Your task to perform on an android device: empty trash in google photos Image 0: 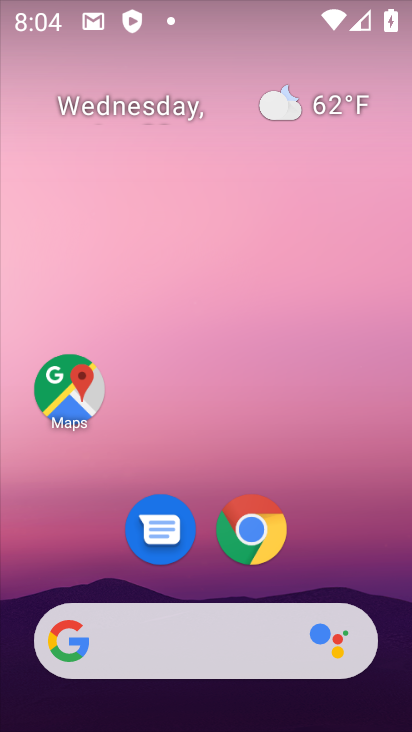
Step 0: drag from (217, 508) to (246, 155)
Your task to perform on an android device: empty trash in google photos Image 1: 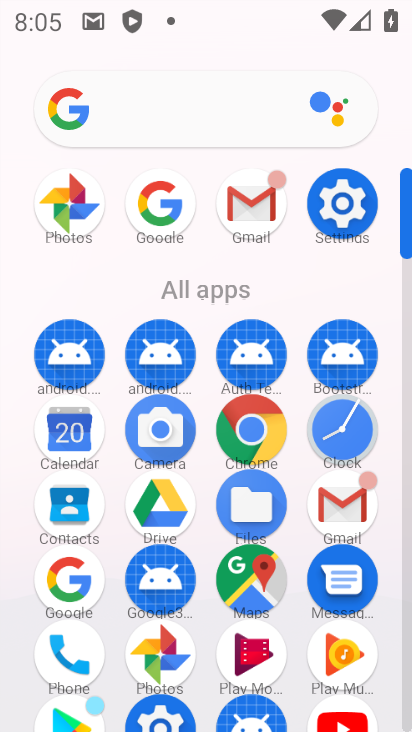
Step 1: click (171, 651)
Your task to perform on an android device: empty trash in google photos Image 2: 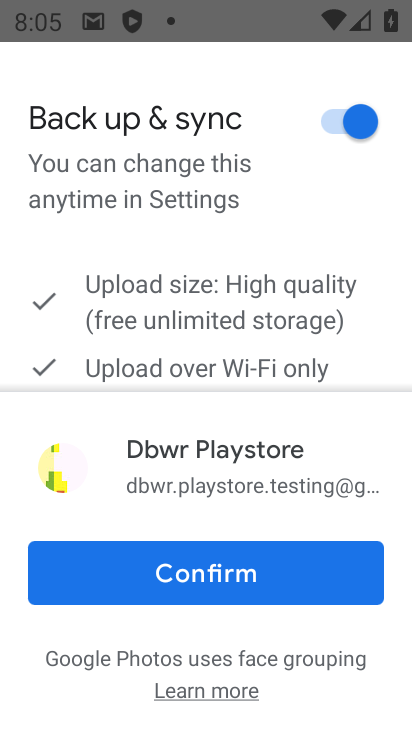
Step 2: click (182, 567)
Your task to perform on an android device: empty trash in google photos Image 3: 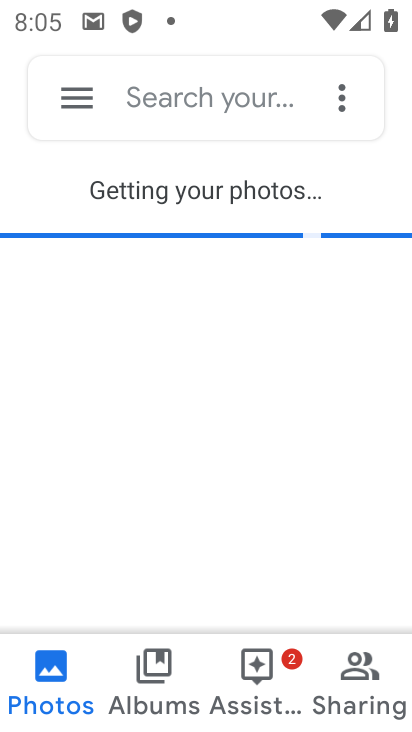
Step 3: click (75, 81)
Your task to perform on an android device: empty trash in google photos Image 4: 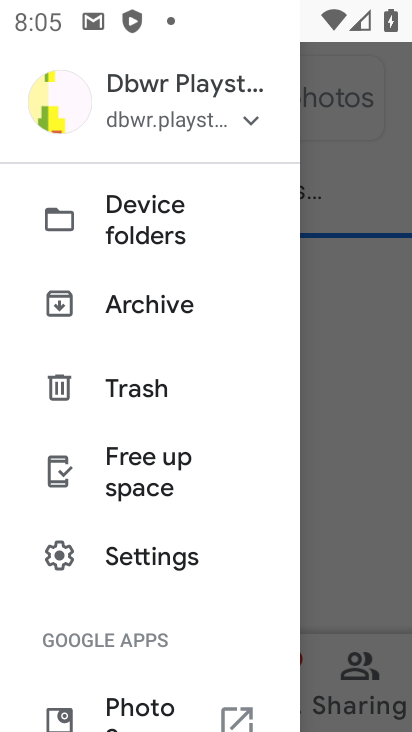
Step 4: click (146, 377)
Your task to perform on an android device: empty trash in google photos Image 5: 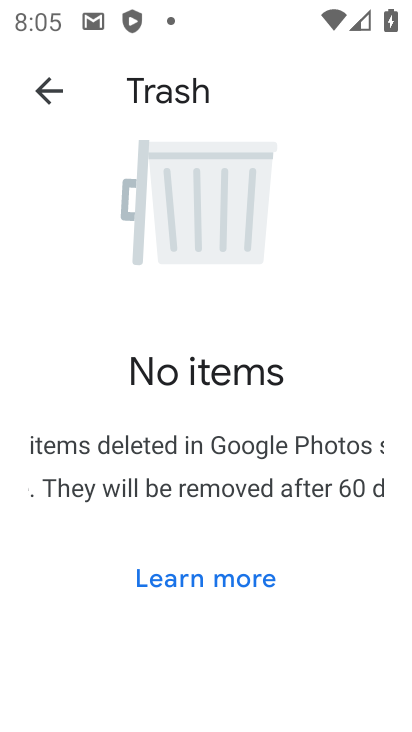
Step 5: task complete